Your task to perform on an android device: Go to settings Image 0: 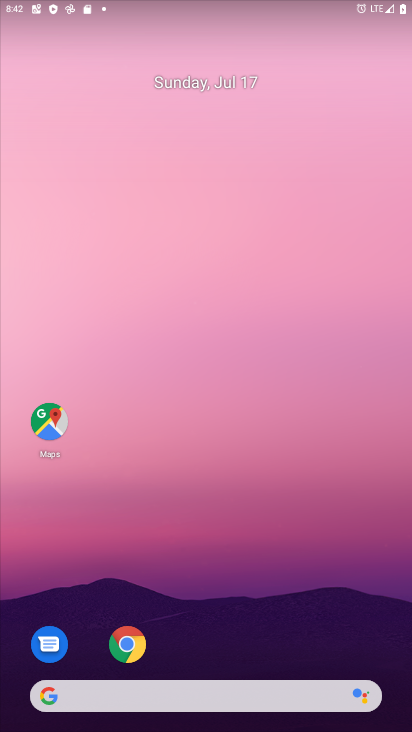
Step 0: drag from (298, 106) to (316, 49)
Your task to perform on an android device: Go to settings Image 1: 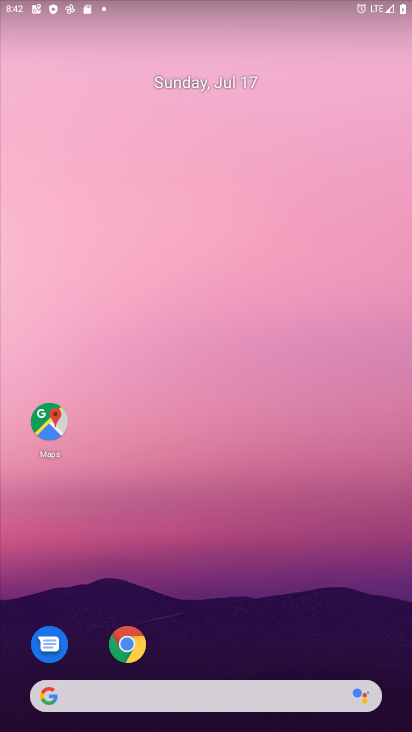
Step 1: drag from (206, 598) to (114, 111)
Your task to perform on an android device: Go to settings Image 2: 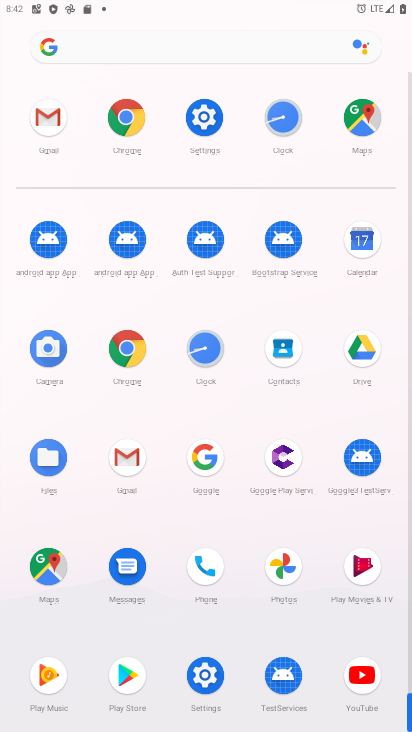
Step 2: click (220, 679)
Your task to perform on an android device: Go to settings Image 3: 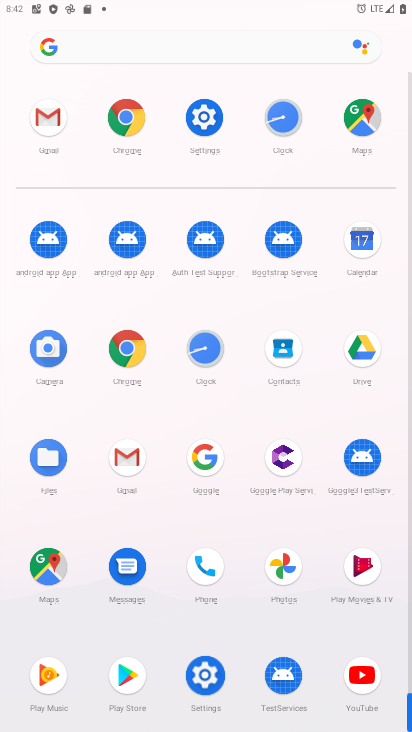
Step 3: click (212, 673)
Your task to perform on an android device: Go to settings Image 4: 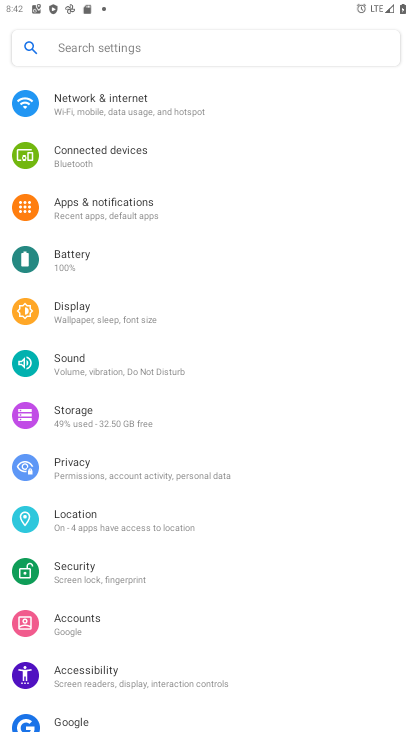
Step 4: click (186, 664)
Your task to perform on an android device: Go to settings Image 5: 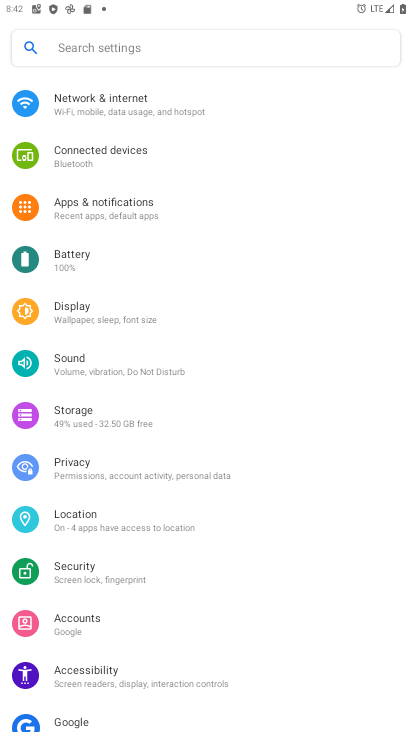
Step 5: click (185, 663)
Your task to perform on an android device: Go to settings Image 6: 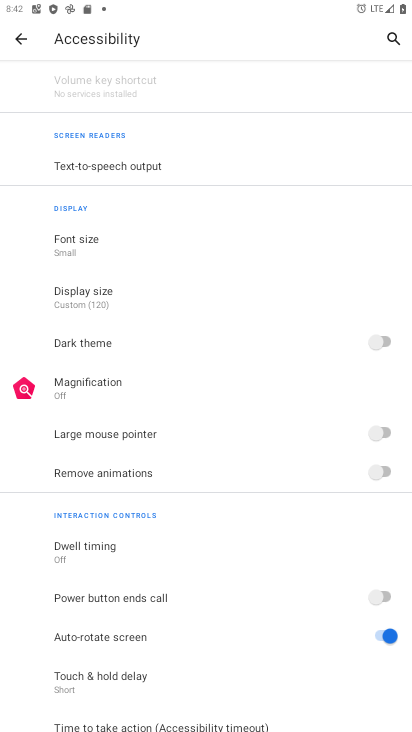
Step 6: task complete